Your task to perform on an android device: open chrome privacy settings Image 0: 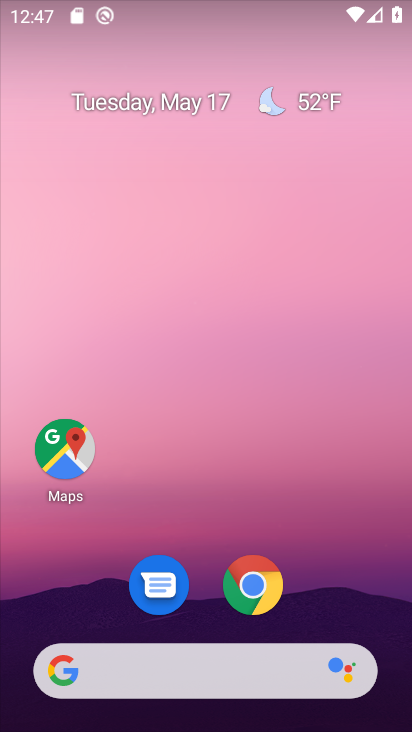
Step 0: click (240, 589)
Your task to perform on an android device: open chrome privacy settings Image 1: 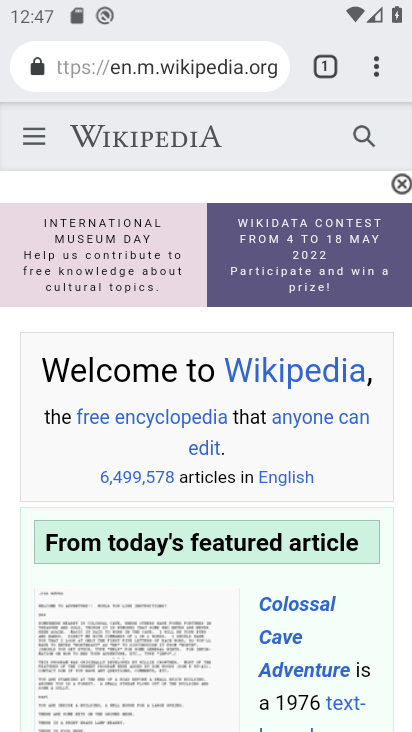
Step 1: click (374, 60)
Your task to perform on an android device: open chrome privacy settings Image 2: 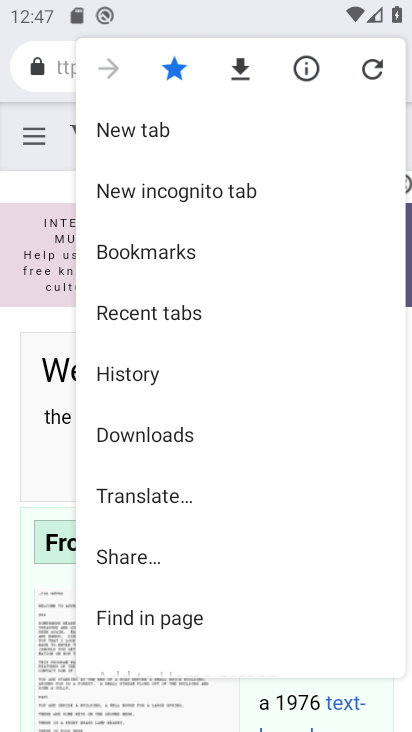
Step 2: drag from (215, 505) to (236, 266)
Your task to perform on an android device: open chrome privacy settings Image 3: 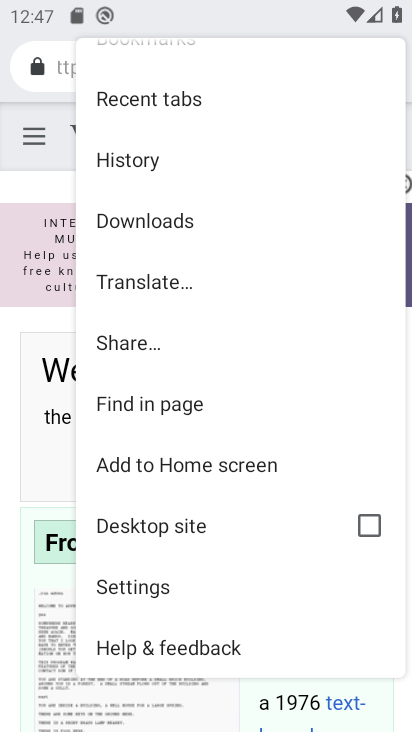
Step 3: click (153, 582)
Your task to perform on an android device: open chrome privacy settings Image 4: 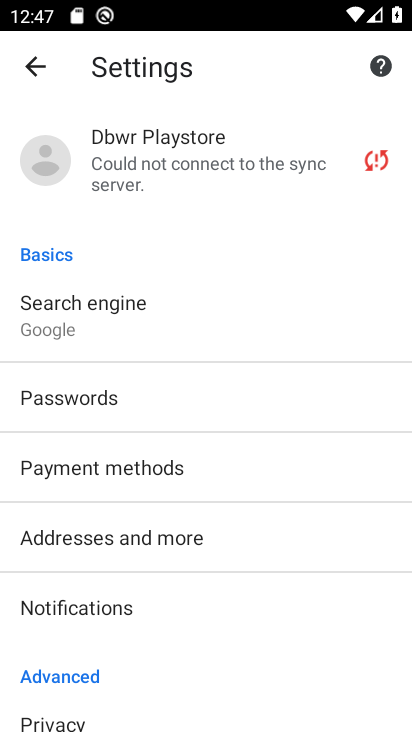
Step 4: drag from (189, 652) to (215, 473)
Your task to perform on an android device: open chrome privacy settings Image 5: 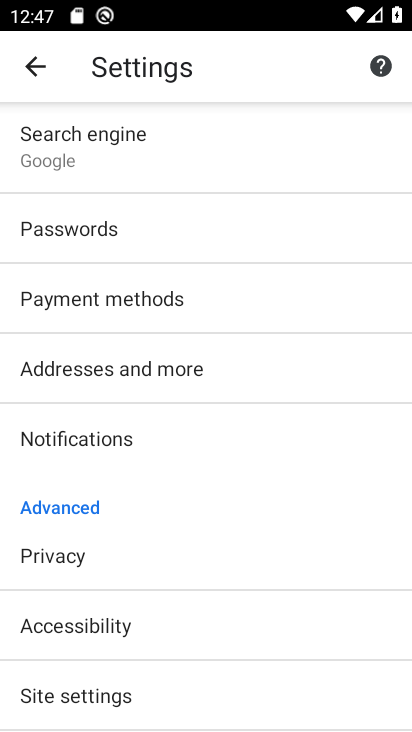
Step 5: click (198, 565)
Your task to perform on an android device: open chrome privacy settings Image 6: 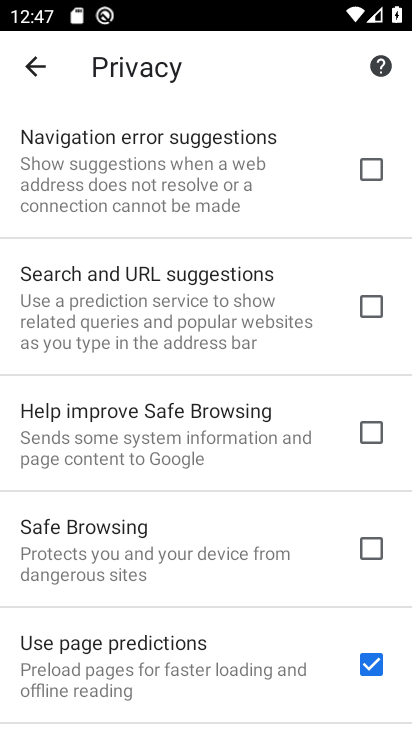
Step 6: task complete